Your task to perform on an android device: turn on improve location accuracy Image 0: 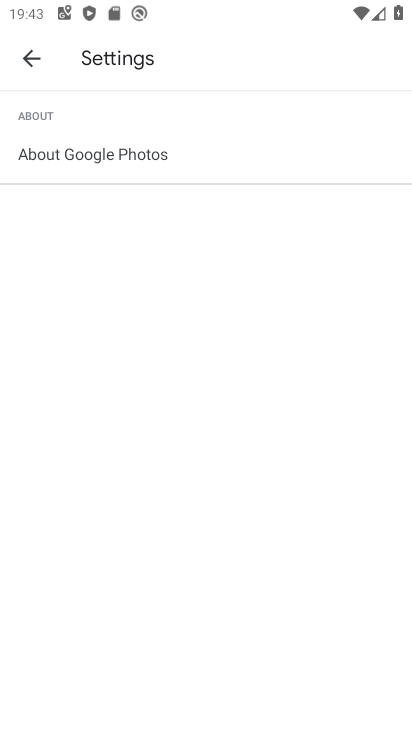
Step 0: press home button
Your task to perform on an android device: turn on improve location accuracy Image 1: 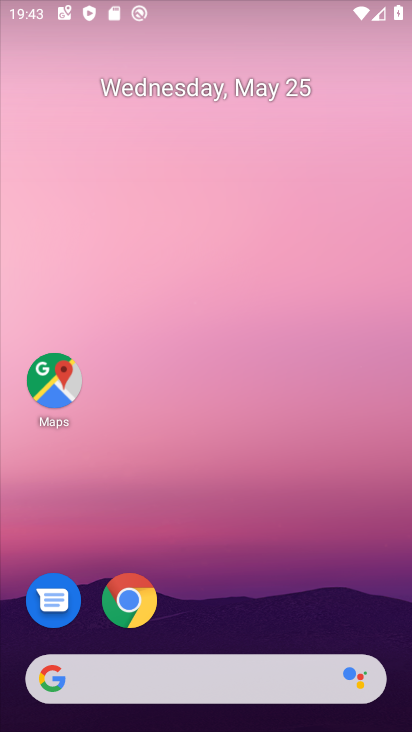
Step 1: drag from (373, 571) to (312, 214)
Your task to perform on an android device: turn on improve location accuracy Image 2: 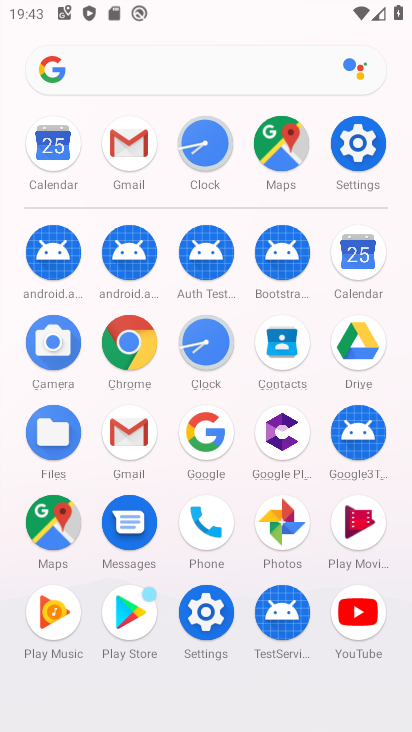
Step 2: click (381, 155)
Your task to perform on an android device: turn on improve location accuracy Image 3: 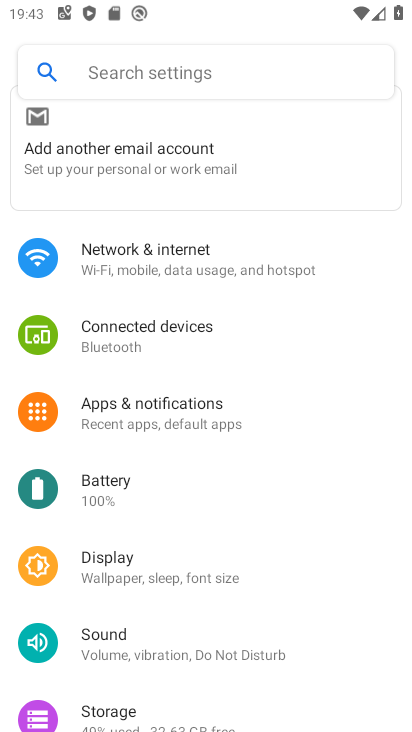
Step 3: drag from (236, 627) to (261, 355)
Your task to perform on an android device: turn on improve location accuracy Image 4: 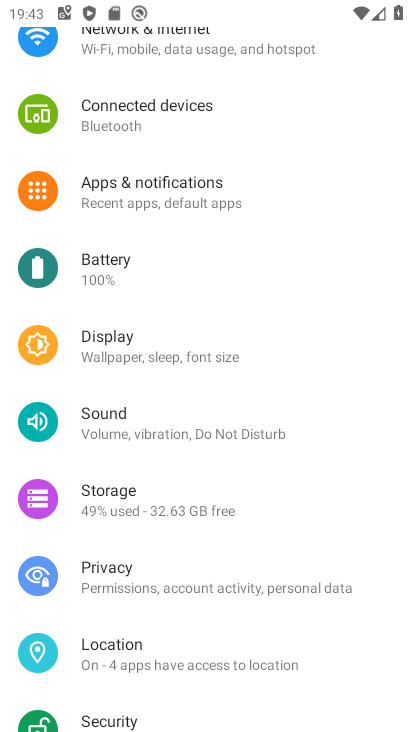
Step 4: click (117, 640)
Your task to perform on an android device: turn on improve location accuracy Image 5: 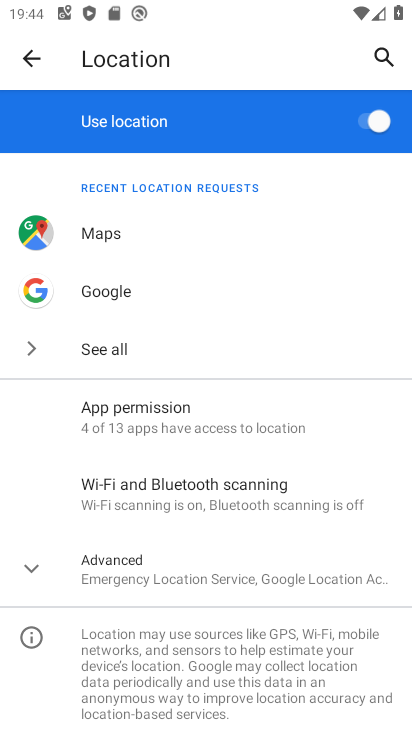
Step 5: click (209, 581)
Your task to perform on an android device: turn on improve location accuracy Image 6: 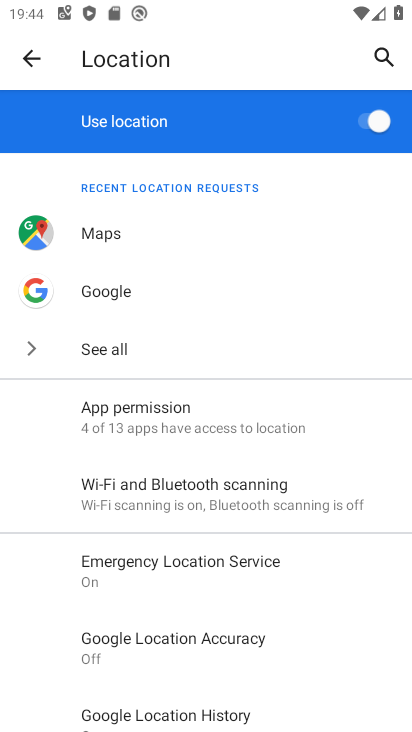
Step 6: drag from (316, 648) to (320, 386)
Your task to perform on an android device: turn on improve location accuracy Image 7: 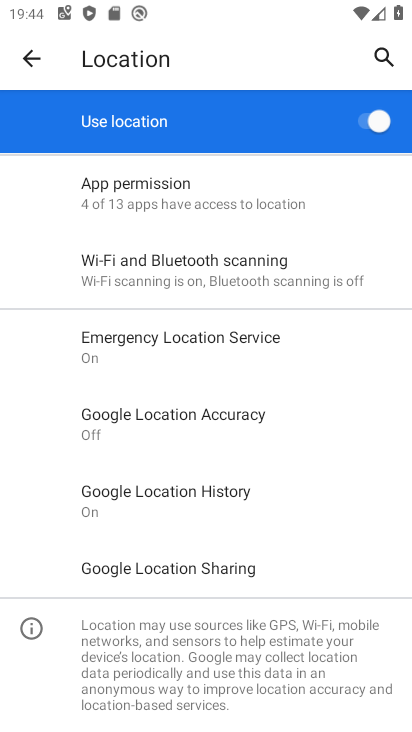
Step 7: click (239, 415)
Your task to perform on an android device: turn on improve location accuracy Image 8: 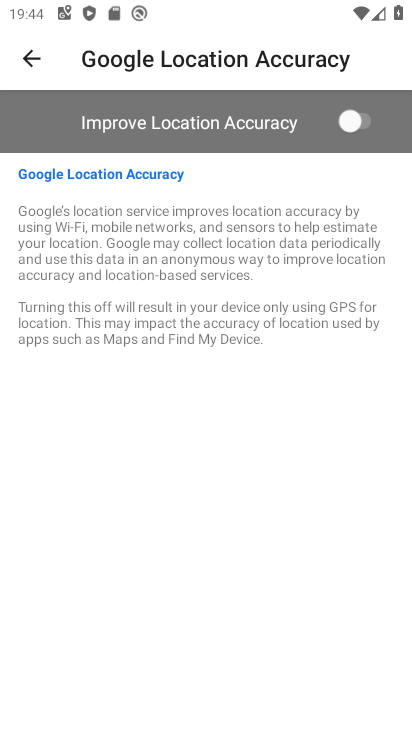
Step 8: click (365, 118)
Your task to perform on an android device: turn on improve location accuracy Image 9: 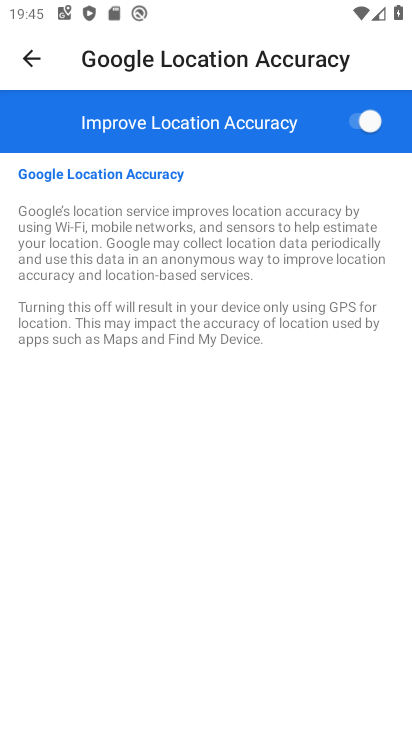
Step 9: task complete